Your task to perform on an android device: Go to eBay Image 0: 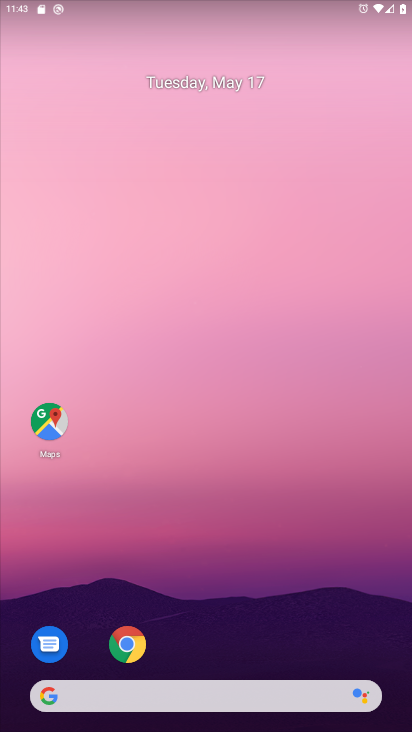
Step 0: click (123, 637)
Your task to perform on an android device: Go to eBay Image 1: 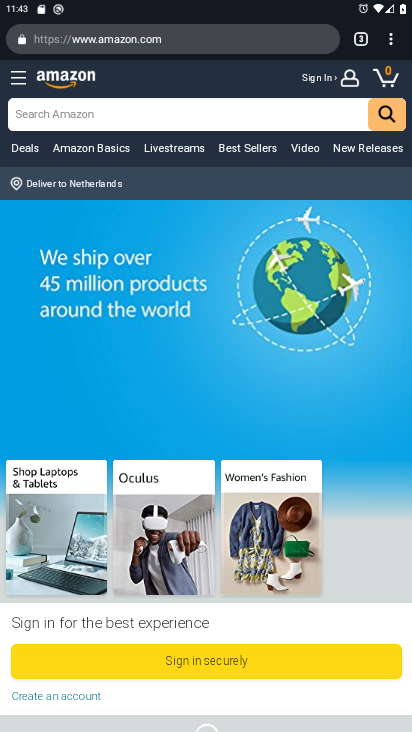
Step 1: click (393, 38)
Your task to perform on an android device: Go to eBay Image 2: 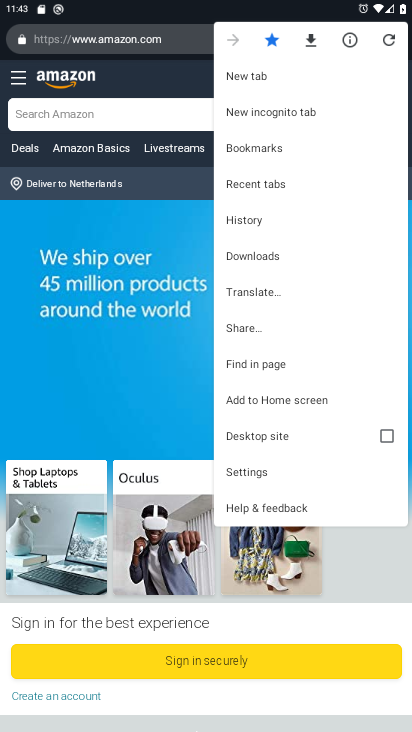
Step 2: click (131, 92)
Your task to perform on an android device: Go to eBay Image 3: 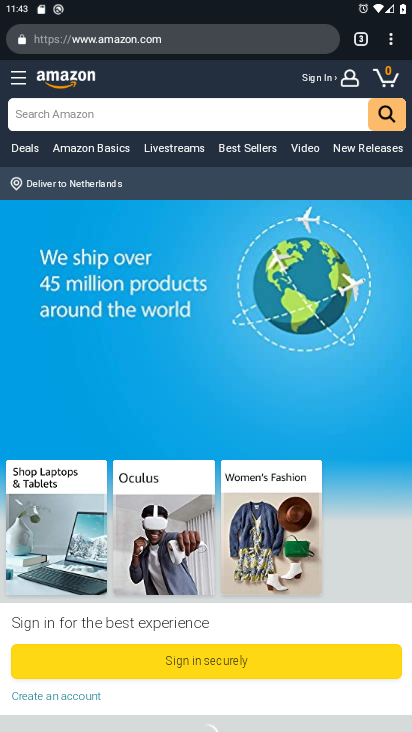
Step 3: click (358, 36)
Your task to perform on an android device: Go to eBay Image 4: 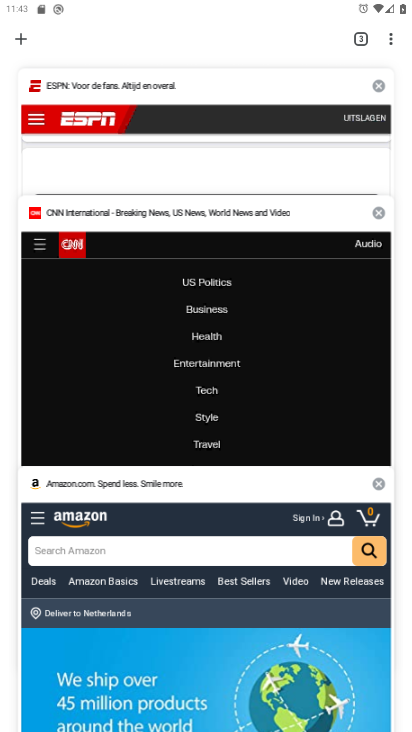
Step 4: click (16, 42)
Your task to perform on an android device: Go to eBay Image 5: 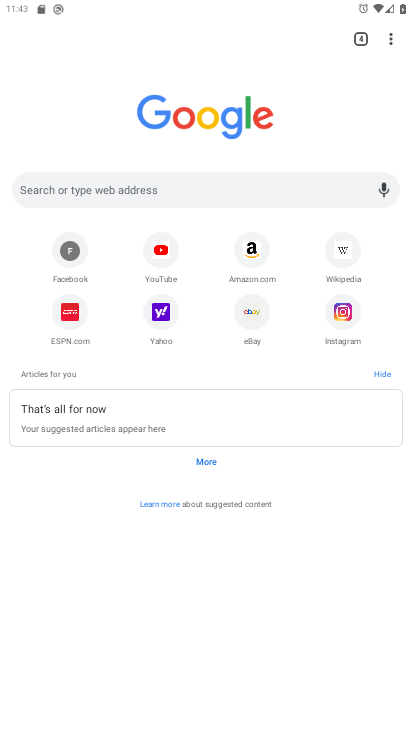
Step 5: click (254, 314)
Your task to perform on an android device: Go to eBay Image 6: 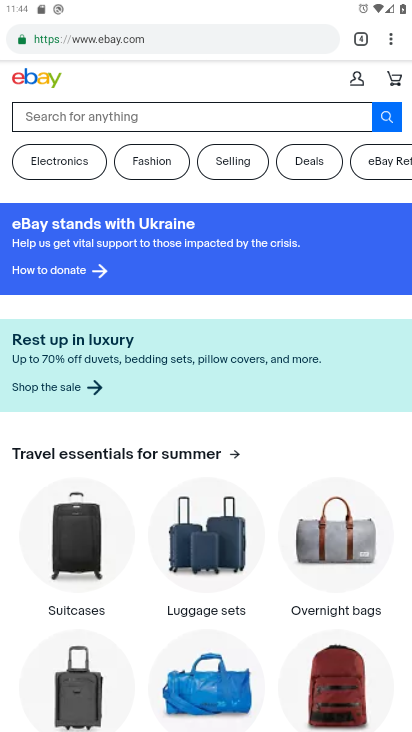
Step 6: task complete